Your task to perform on an android device: turn on priority inbox in the gmail app Image 0: 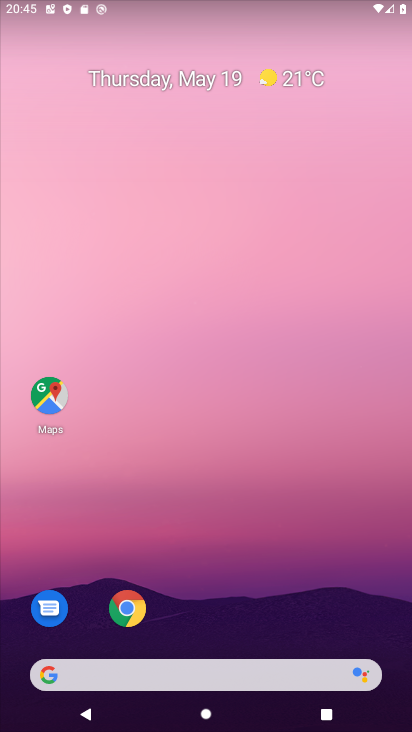
Step 0: drag from (244, 530) to (149, 44)
Your task to perform on an android device: turn on priority inbox in the gmail app Image 1: 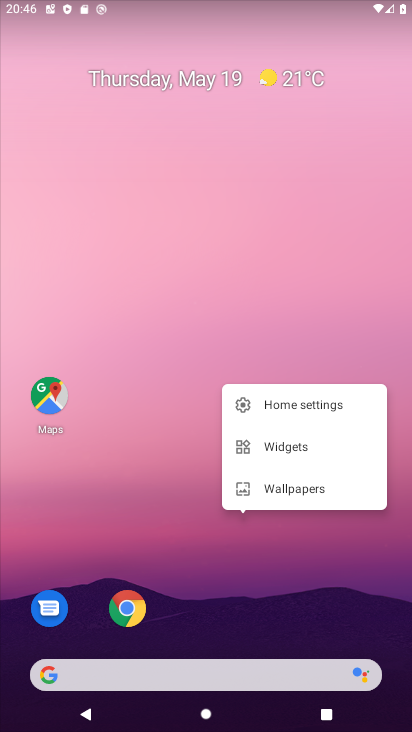
Step 1: click (120, 465)
Your task to perform on an android device: turn on priority inbox in the gmail app Image 2: 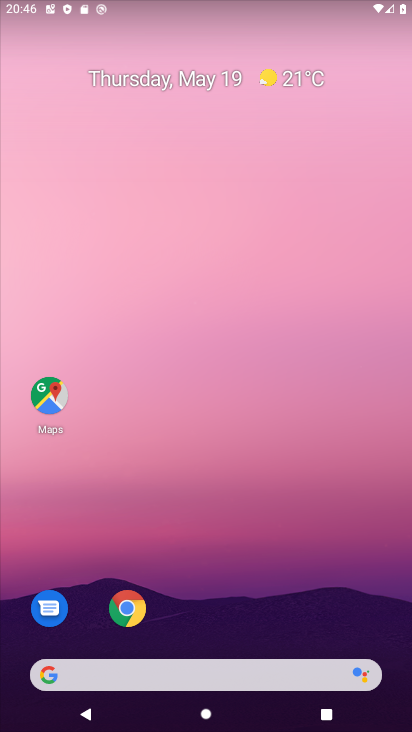
Step 2: drag from (197, 542) to (139, 20)
Your task to perform on an android device: turn on priority inbox in the gmail app Image 3: 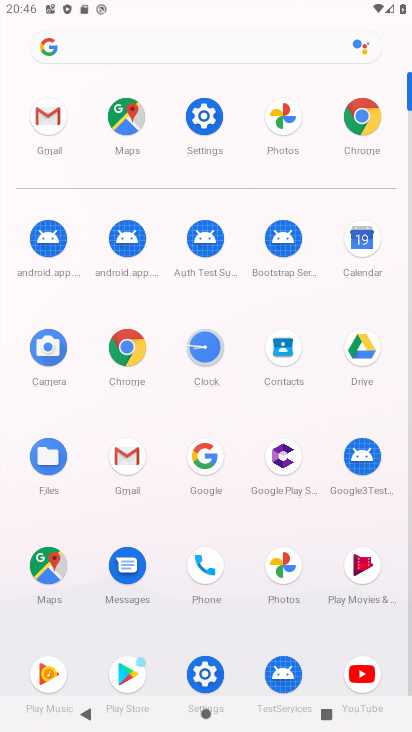
Step 3: click (46, 116)
Your task to perform on an android device: turn on priority inbox in the gmail app Image 4: 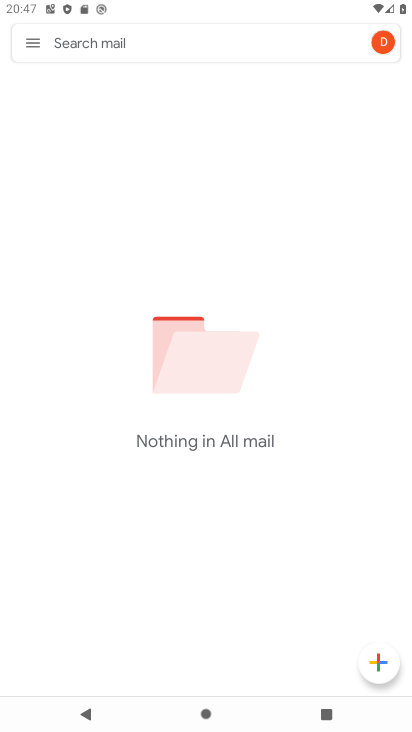
Step 4: click (21, 39)
Your task to perform on an android device: turn on priority inbox in the gmail app Image 5: 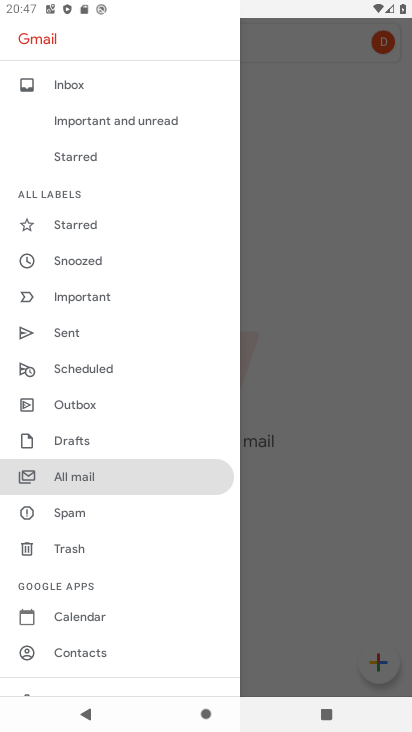
Step 5: drag from (116, 541) to (131, 238)
Your task to perform on an android device: turn on priority inbox in the gmail app Image 6: 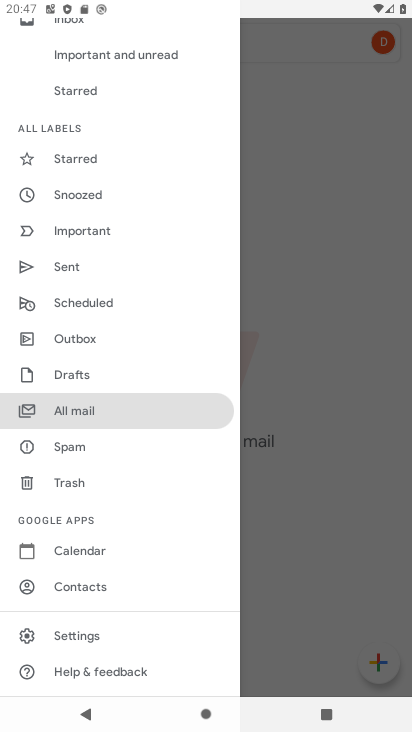
Step 6: click (73, 625)
Your task to perform on an android device: turn on priority inbox in the gmail app Image 7: 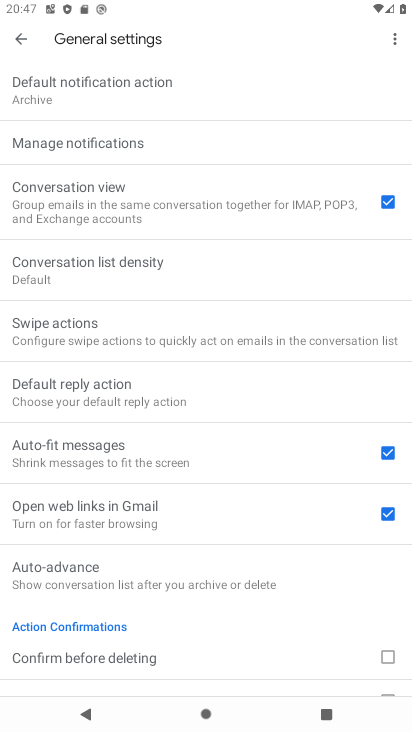
Step 7: drag from (206, 526) to (188, 215)
Your task to perform on an android device: turn on priority inbox in the gmail app Image 8: 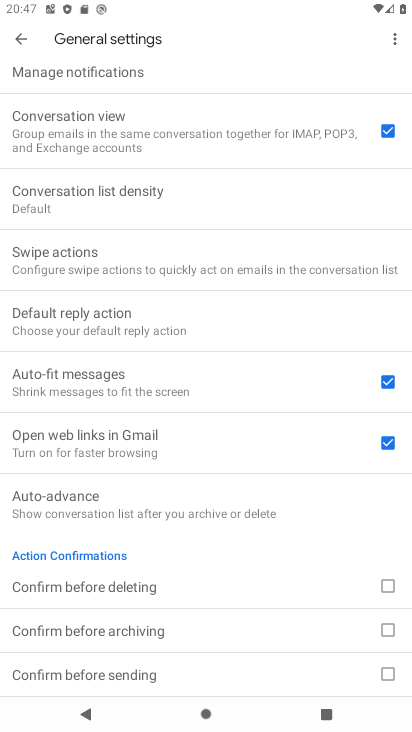
Step 8: drag from (182, 538) to (182, 242)
Your task to perform on an android device: turn on priority inbox in the gmail app Image 9: 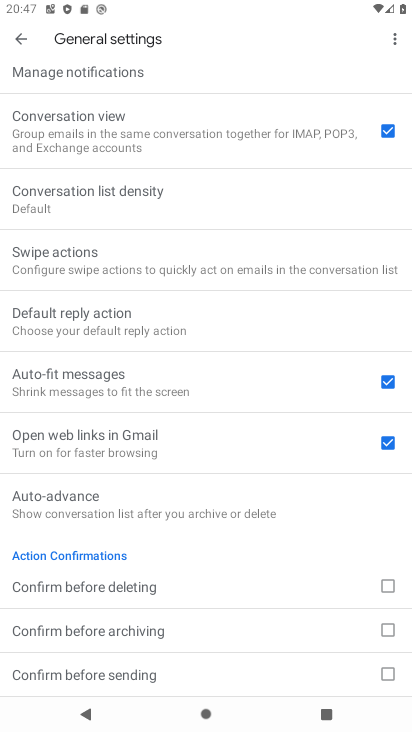
Step 9: click (22, 32)
Your task to perform on an android device: turn on priority inbox in the gmail app Image 10: 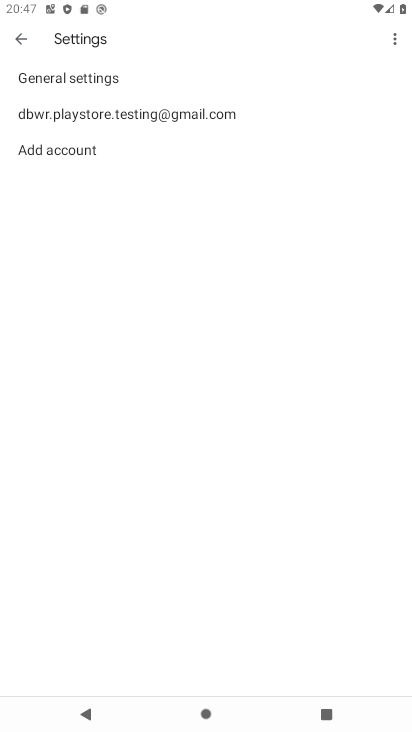
Step 10: click (50, 109)
Your task to perform on an android device: turn on priority inbox in the gmail app Image 11: 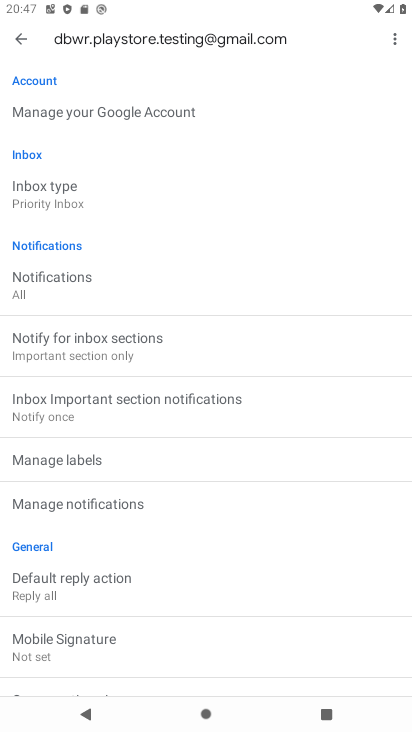
Step 11: drag from (149, 557) to (149, 214)
Your task to perform on an android device: turn on priority inbox in the gmail app Image 12: 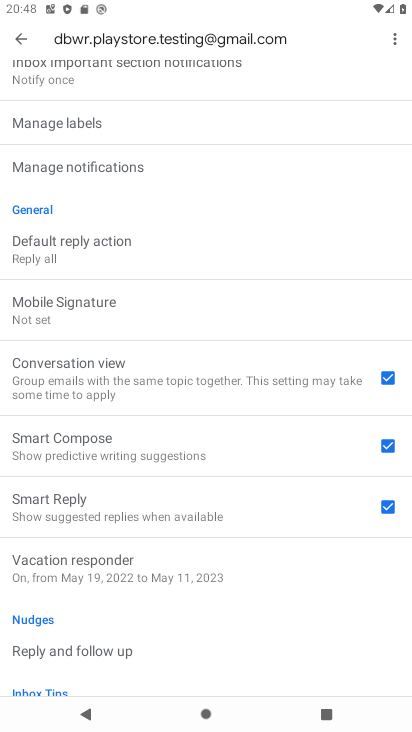
Step 12: drag from (203, 131) to (163, 714)
Your task to perform on an android device: turn on priority inbox in the gmail app Image 13: 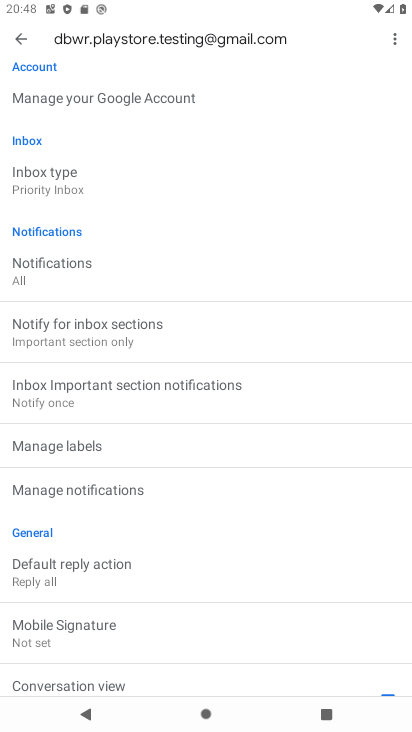
Step 13: click (33, 171)
Your task to perform on an android device: turn on priority inbox in the gmail app Image 14: 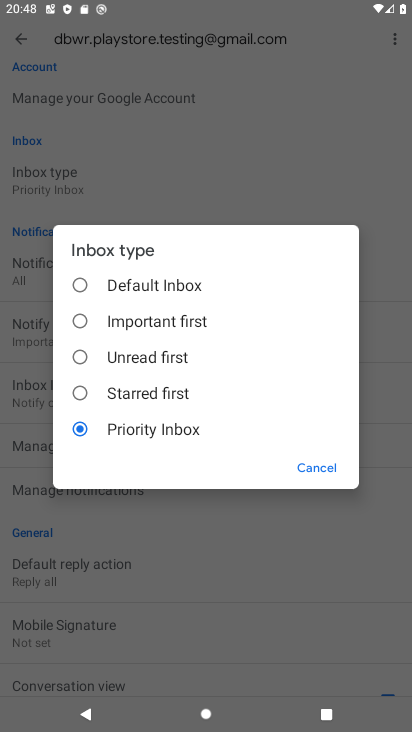
Step 14: task complete